Your task to perform on an android device: Do I have any events tomorrow? Image 0: 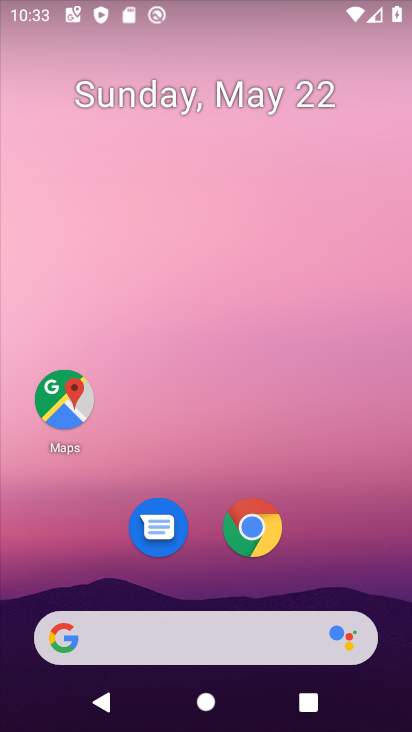
Step 0: drag from (356, 567) to (356, 249)
Your task to perform on an android device: Do I have any events tomorrow? Image 1: 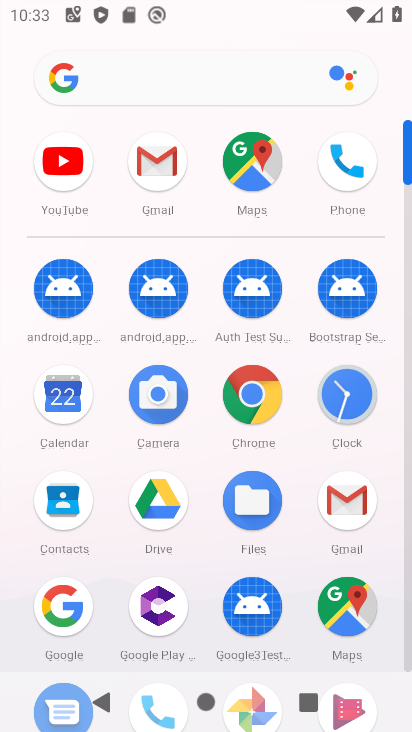
Step 1: click (75, 404)
Your task to perform on an android device: Do I have any events tomorrow? Image 2: 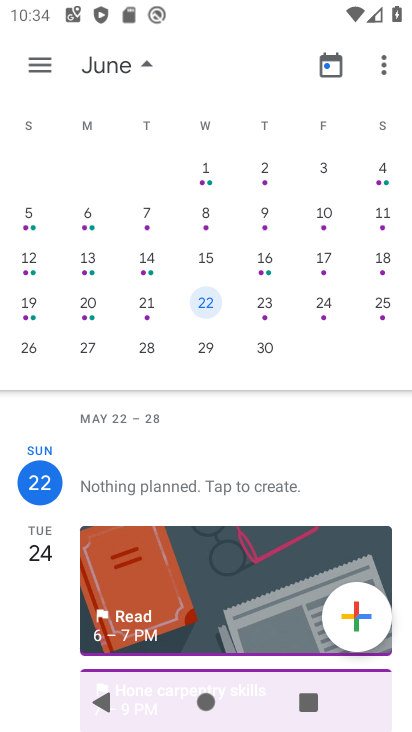
Step 2: task complete